Your task to perform on an android device: toggle improve location accuracy Image 0: 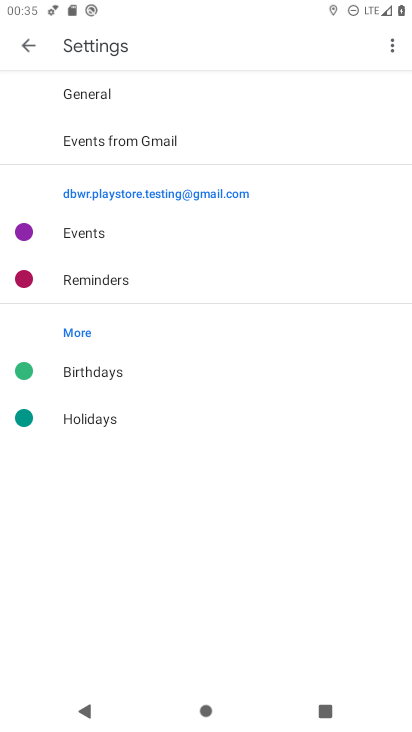
Step 0: press home button
Your task to perform on an android device: toggle improve location accuracy Image 1: 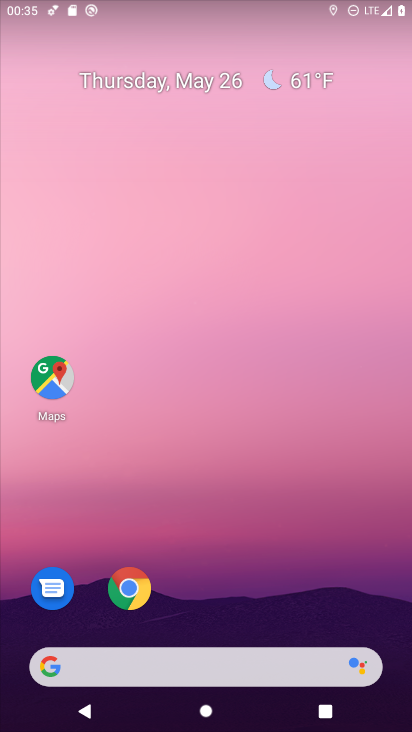
Step 1: drag from (257, 598) to (146, 190)
Your task to perform on an android device: toggle improve location accuracy Image 2: 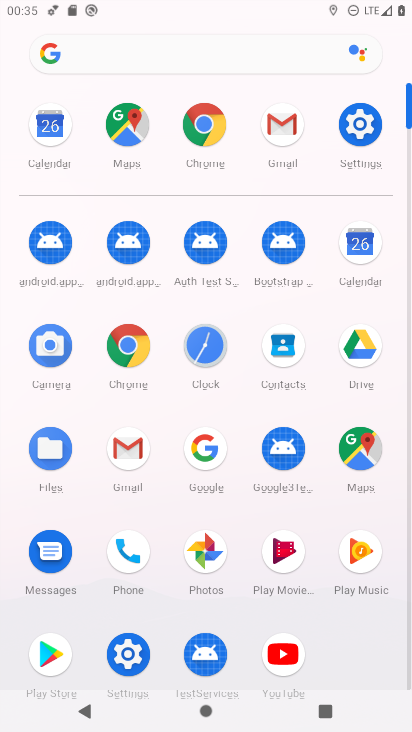
Step 2: click (349, 133)
Your task to perform on an android device: toggle improve location accuracy Image 3: 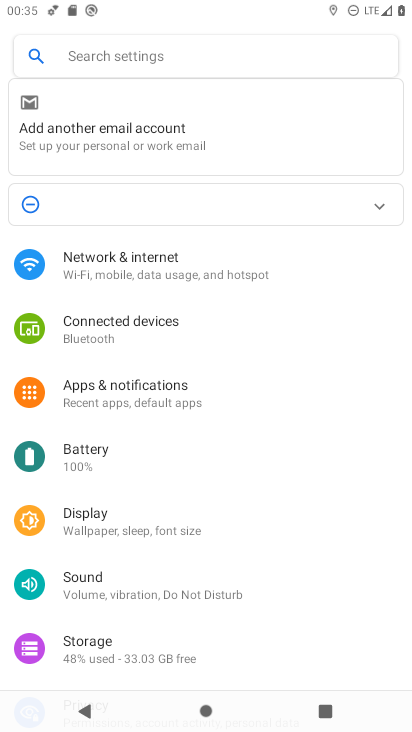
Step 3: drag from (201, 561) to (134, 351)
Your task to perform on an android device: toggle improve location accuracy Image 4: 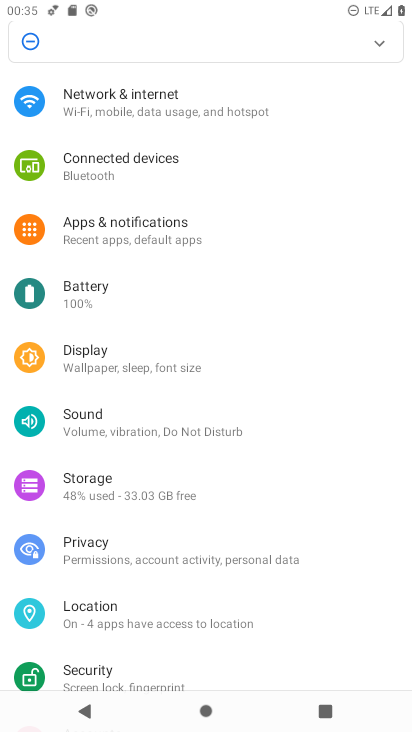
Step 4: click (111, 596)
Your task to perform on an android device: toggle improve location accuracy Image 5: 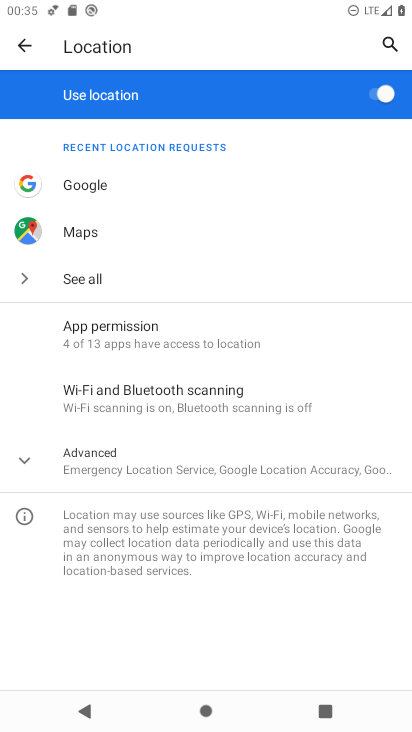
Step 5: click (45, 455)
Your task to perform on an android device: toggle improve location accuracy Image 6: 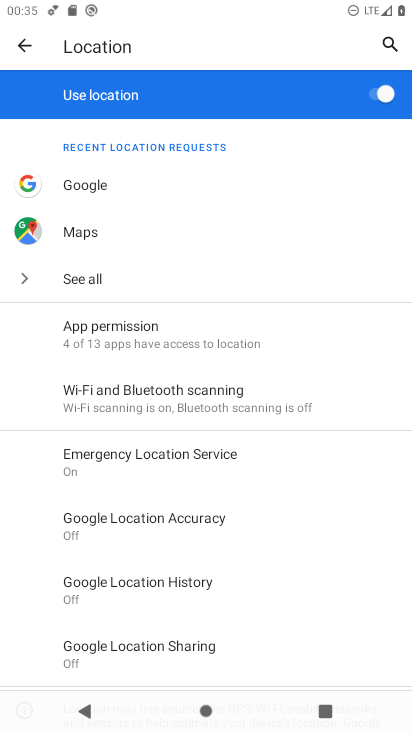
Step 6: click (188, 509)
Your task to perform on an android device: toggle improve location accuracy Image 7: 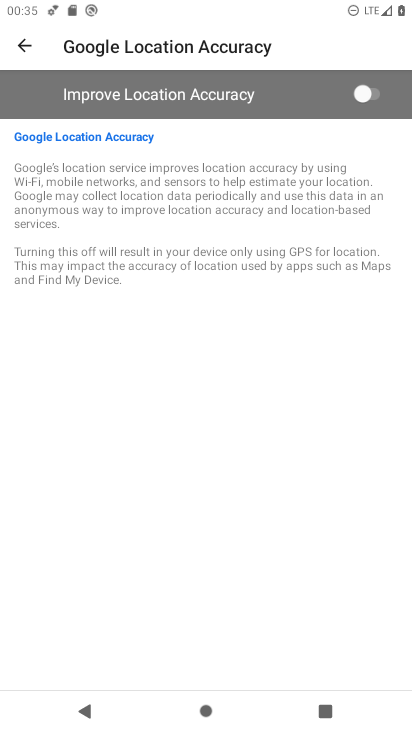
Step 7: click (367, 89)
Your task to perform on an android device: toggle improve location accuracy Image 8: 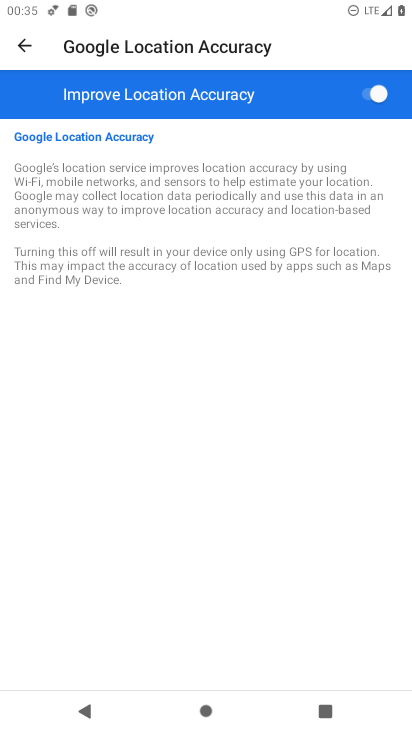
Step 8: task complete